Your task to perform on an android device: Go to ESPN.com Image 0: 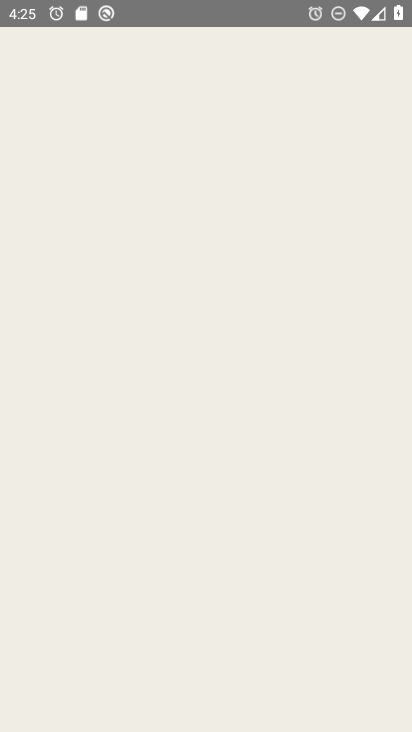
Step 0: click (180, 35)
Your task to perform on an android device: Go to ESPN.com Image 1: 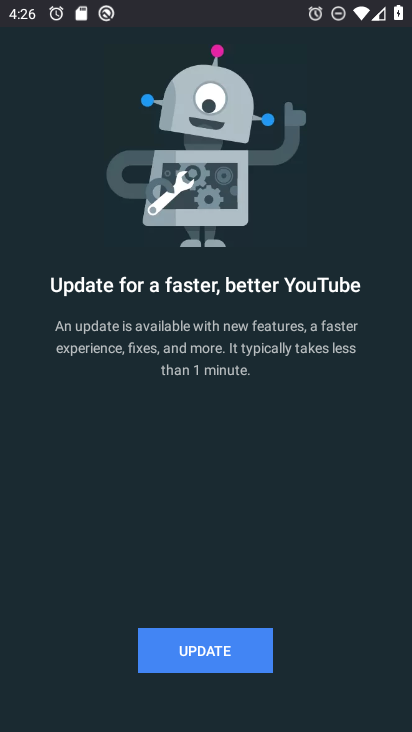
Step 1: click (182, 649)
Your task to perform on an android device: Go to ESPN.com Image 2: 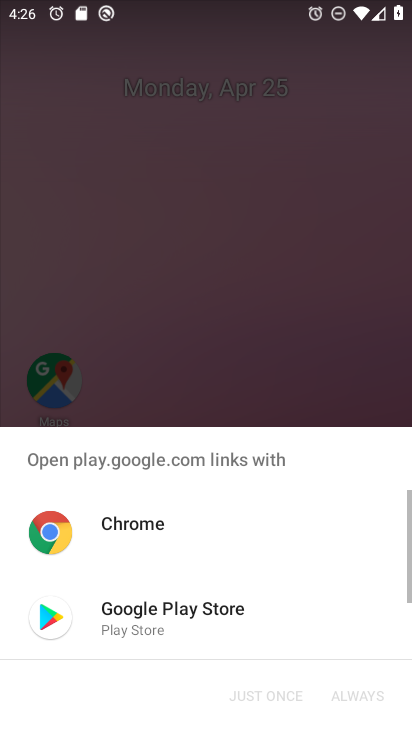
Step 2: press back button
Your task to perform on an android device: Go to ESPN.com Image 3: 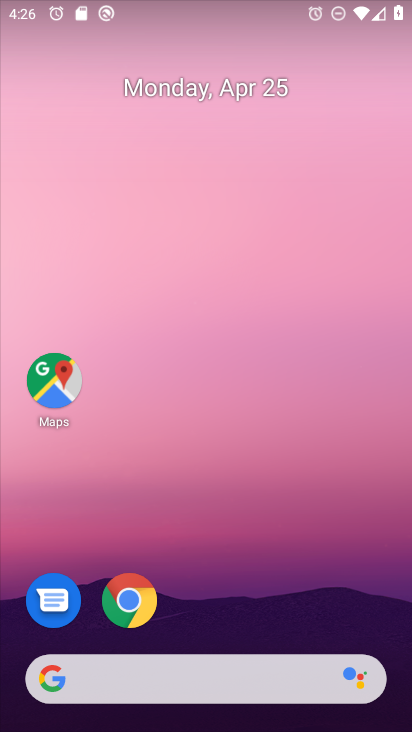
Step 3: drag from (230, 452) to (233, 42)
Your task to perform on an android device: Go to ESPN.com Image 4: 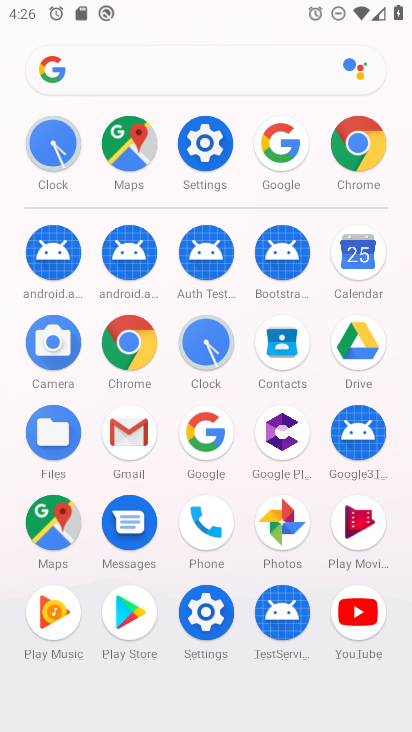
Step 4: drag from (12, 476) to (18, 114)
Your task to perform on an android device: Go to ESPN.com Image 5: 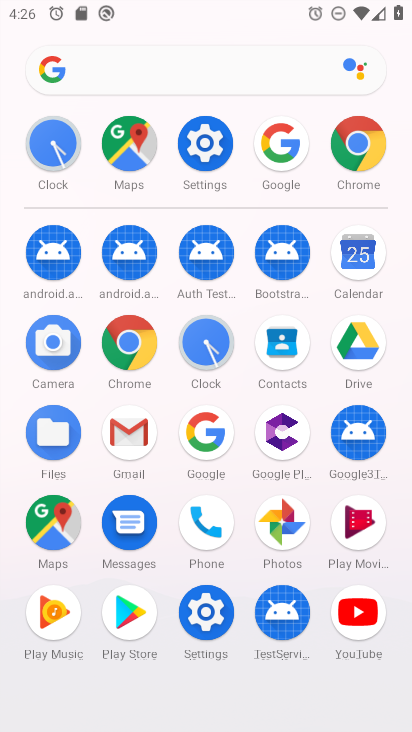
Step 5: click (130, 334)
Your task to perform on an android device: Go to ESPN.com Image 6: 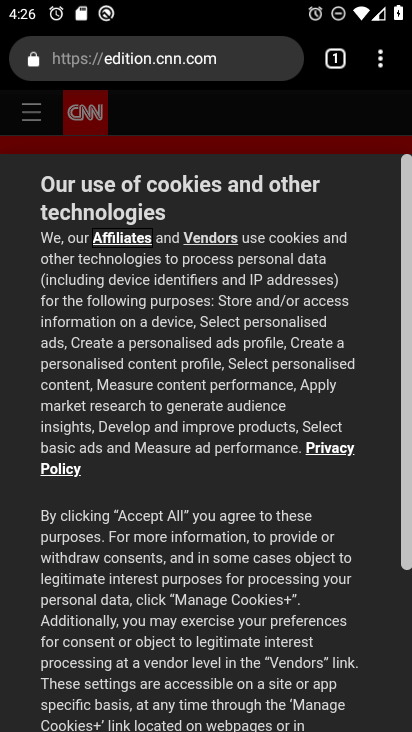
Step 6: click (213, 67)
Your task to perform on an android device: Go to ESPN.com Image 7: 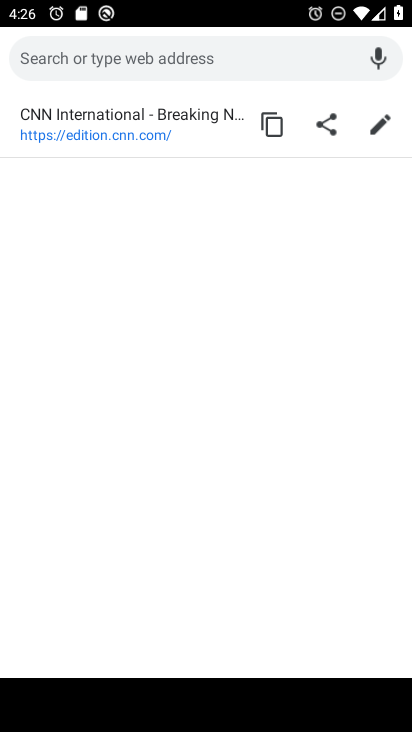
Step 7: type "ESPN.com"
Your task to perform on an android device: Go to ESPN.com Image 8: 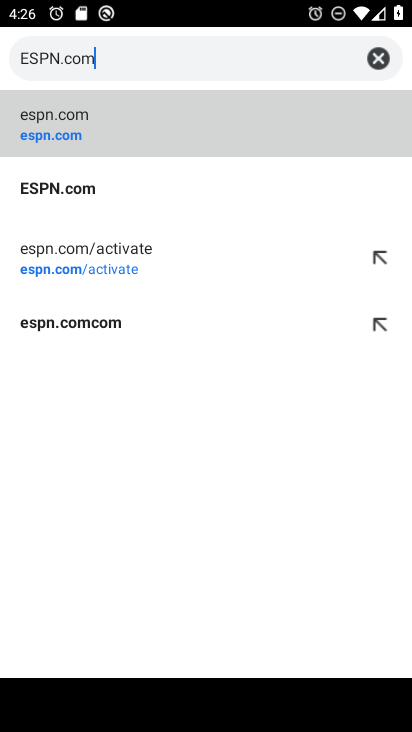
Step 8: click (159, 121)
Your task to perform on an android device: Go to ESPN.com Image 9: 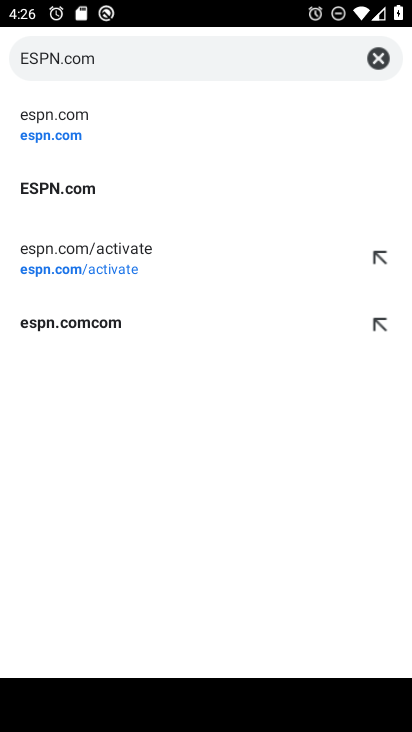
Step 9: click (127, 126)
Your task to perform on an android device: Go to ESPN.com Image 10: 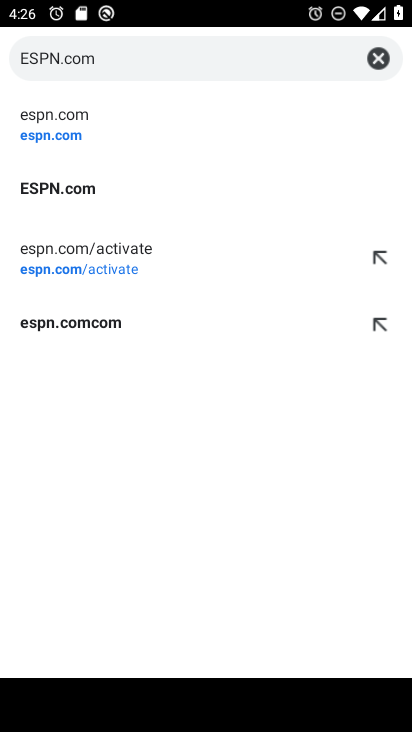
Step 10: click (131, 116)
Your task to perform on an android device: Go to ESPN.com Image 11: 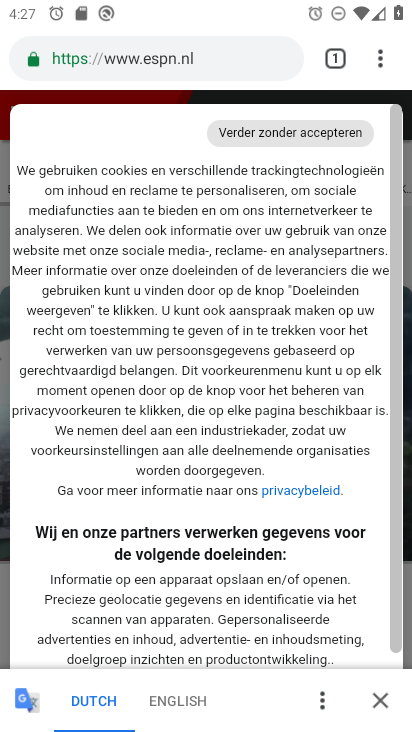
Step 11: task complete